Your task to perform on an android device: Open settings on Google Maps Image 0: 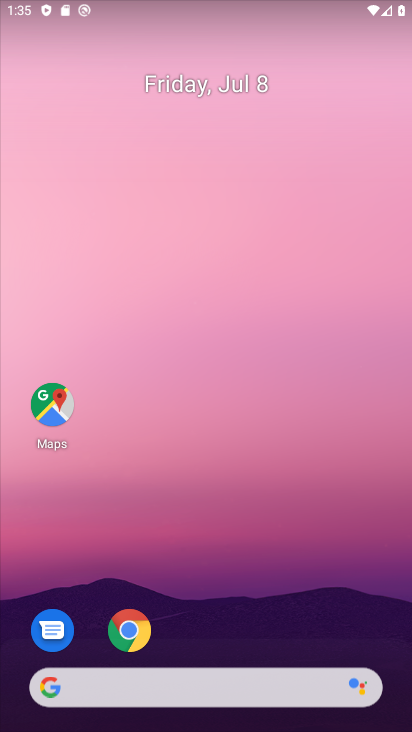
Step 0: click (39, 391)
Your task to perform on an android device: Open settings on Google Maps Image 1: 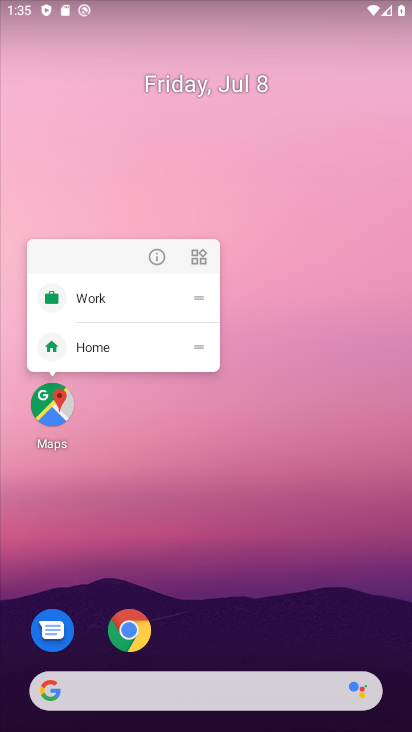
Step 1: click (52, 395)
Your task to perform on an android device: Open settings on Google Maps Image 2: 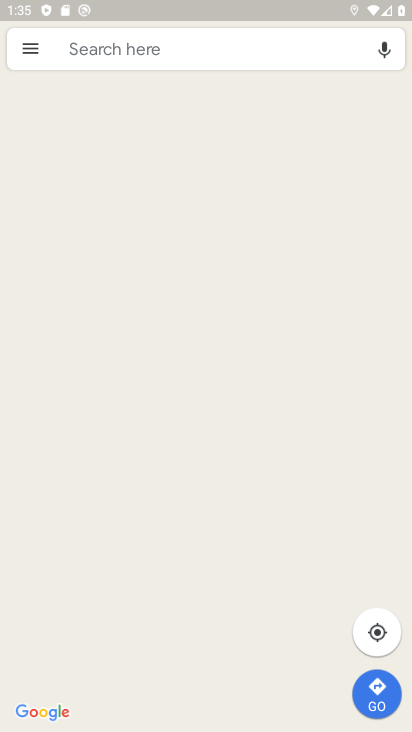
Step 2: click (22, 48)
Your task to perform on an android device: Open settings on Google Maps Image 3: 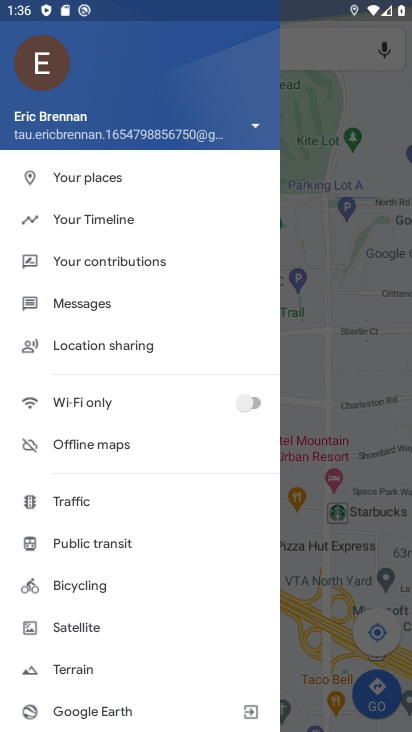
Step 3: drag from (143, 584) to (28, 174)
Your task to perform on an android device: Open settings on Google Maps Image 4: 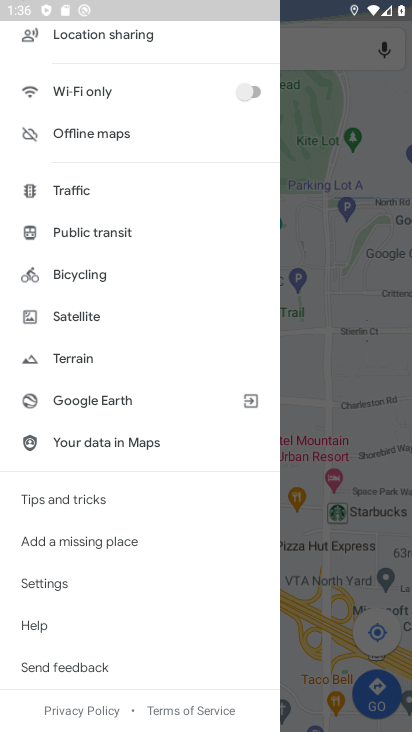
Step 4: click (61, 587)
Your task to perform on an android device: Open settings on Google Maps Image 5: 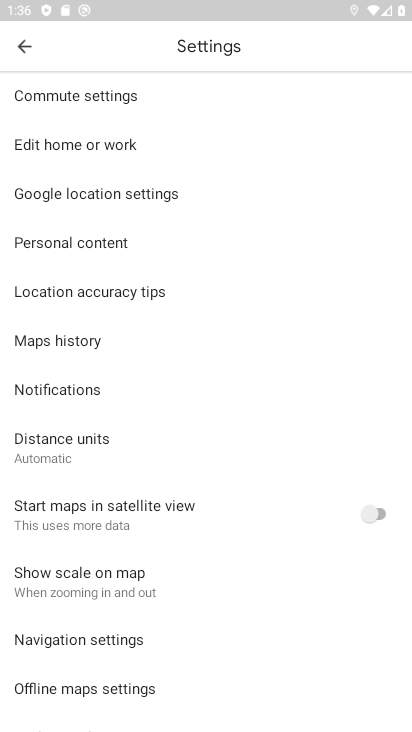
Step 5: task complete